Your task to perform on an android device: Go to Reddit.com Image 0: 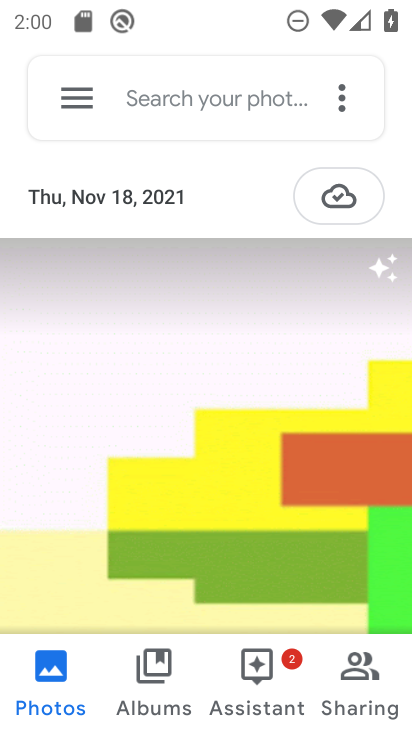
Step 0: press home button
Your task to perform on an android device: Go to Reddit.com Image 1: 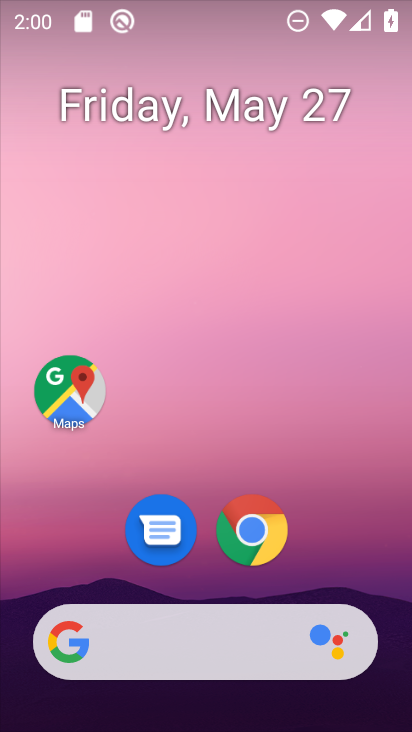
Step 1: click (255, 543)
Your task to perform on an android device: Go to Reddit.com Image 2: 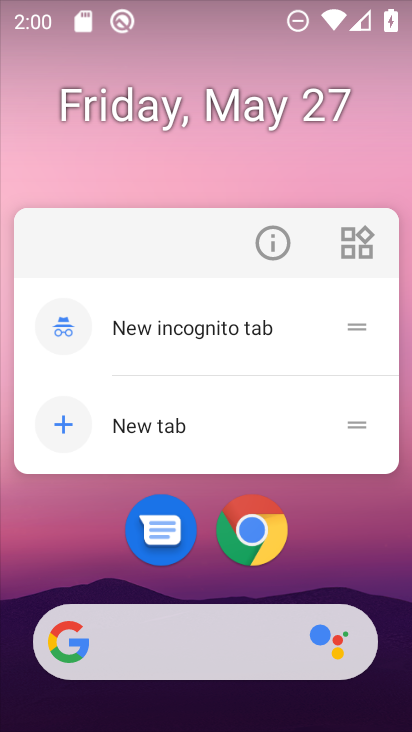
Step 2: click (234, 540)
Your task to perform on an android device: Go to Reddit.com Image 3: 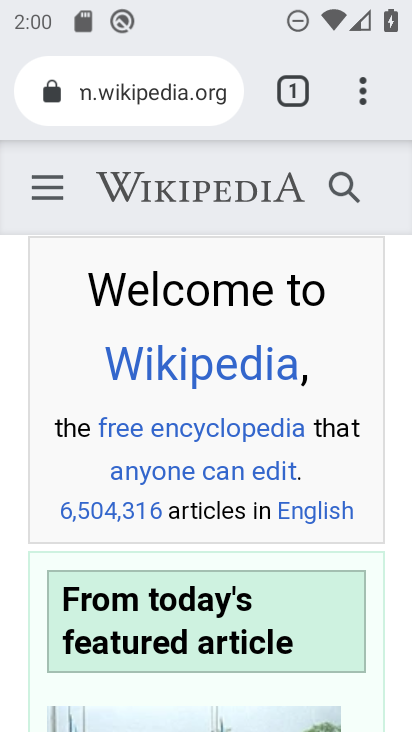
Step 3: click (290, 92)
Your task to perform on an android device: Go to Reddit.com Image 4: 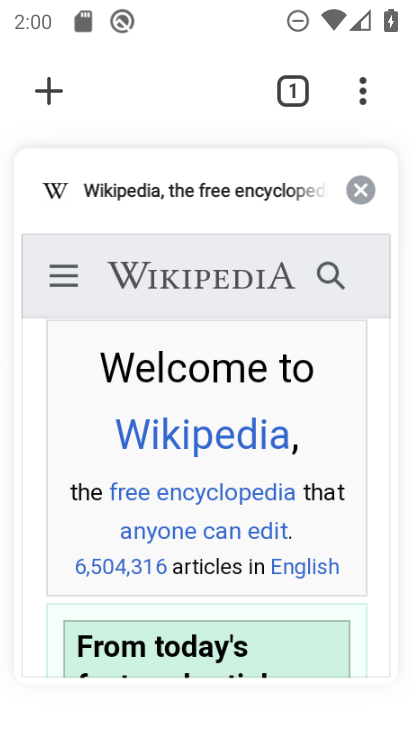
Step 4: click (364, 188)
Your task to perform on an android device: Go to Reddit.com Image 5: 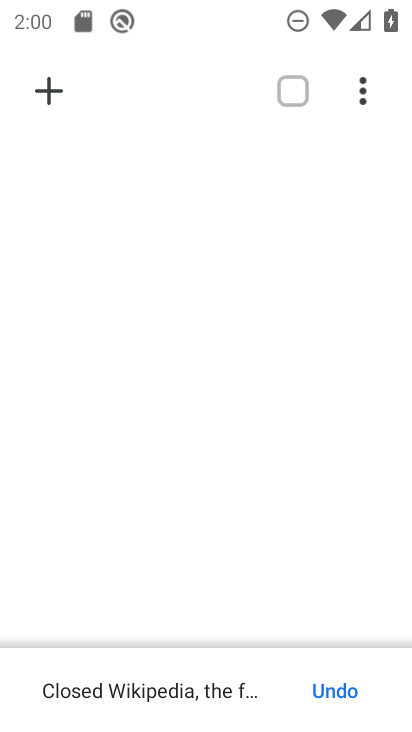
Step 5: click (53, 93)
Your task to perform on an android device: Go to Reddit.com Image 6: 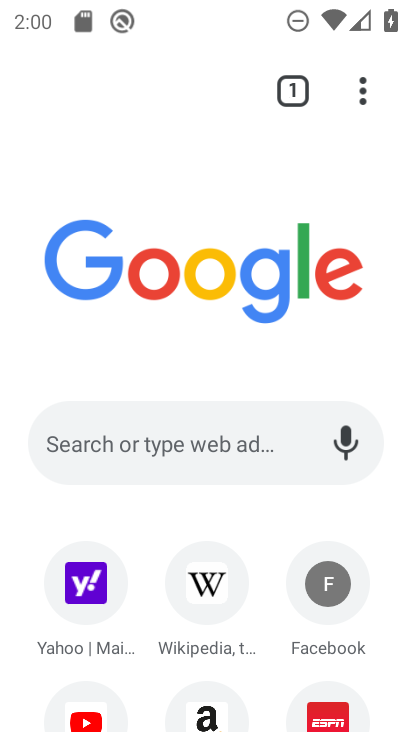
Step 6: click (184, 456)
Your task to perform on an android device: Go to Reddit.com Image 7: 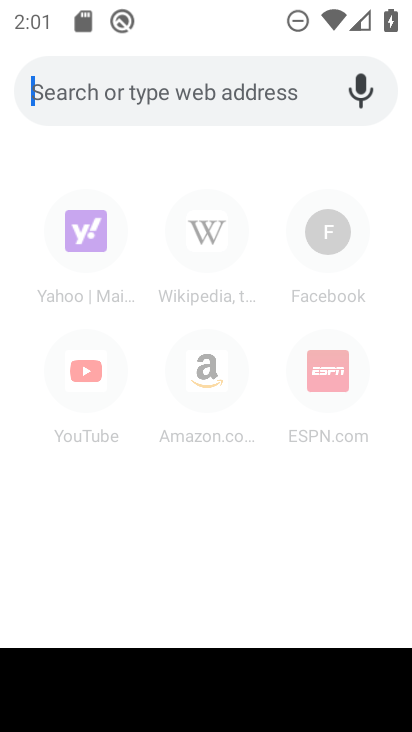
Step 7: type "reddit.com"
Your task to perform on an android device: Go to Reddit.com Image 8: 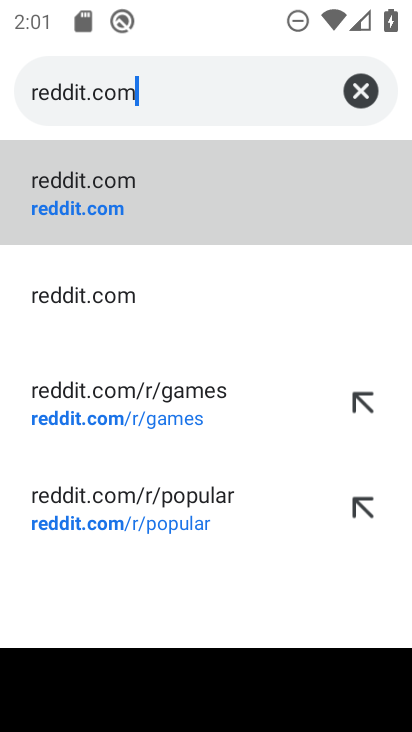
Step 8: click (130, 203)
Your task to perform on an android device: Go to Reddit.com Image 9: 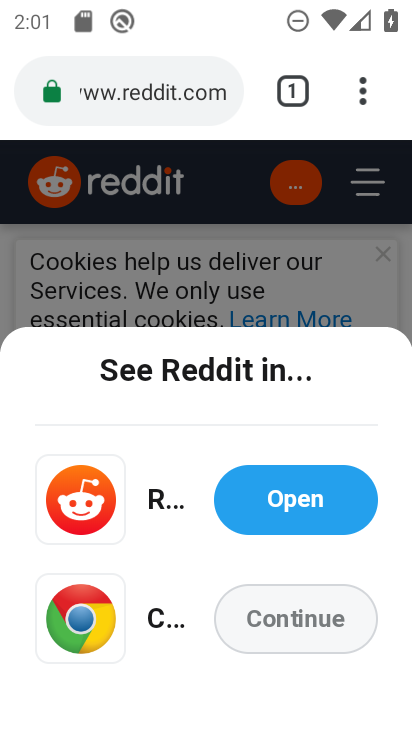
Step 9: task complete